Your task to perform on an android device: Search for alienware area 51 on target.com, select the first entry, add it to the cart, then select checkout. Image 0: 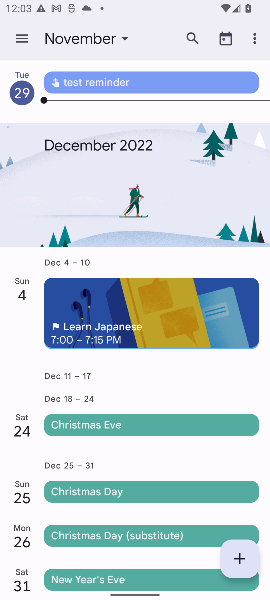
Step 0: press home button
Your task to perform on an android device: Search for alienware area 51 on target.com, select the first entry, add it to the cart, then select checkout. Image 1: 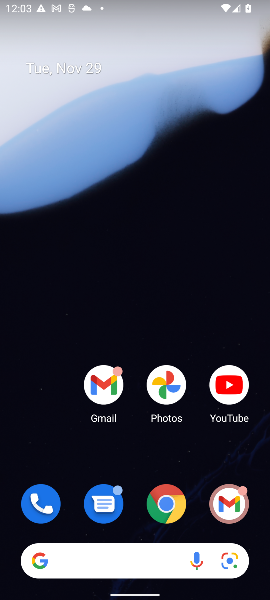
Step 1: click (171, 506)
Your task to perform on an android device: Search for alienware area 51 on target.com, select the first entry, add it to the cart, then select checkout. Image 2: 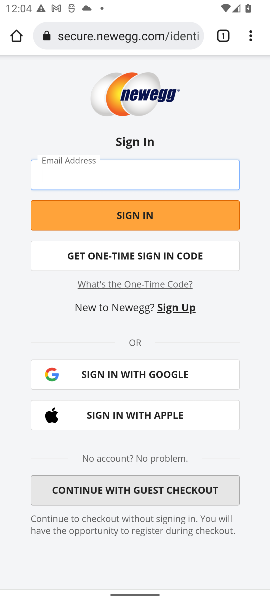
Step 2: click (101, 38)
Your task to perform on an android device: Search for alienware area 51 on target.com, select the first entry, add it to the cart, then select checkout. Image 3: 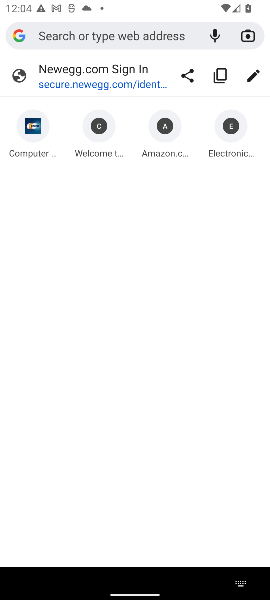
Step 3: type "target.com"
Your task to perform on an android device: Search for alienware area 51 on target.com, select the first entry, add it to the cart, then select checkout. Image 4: 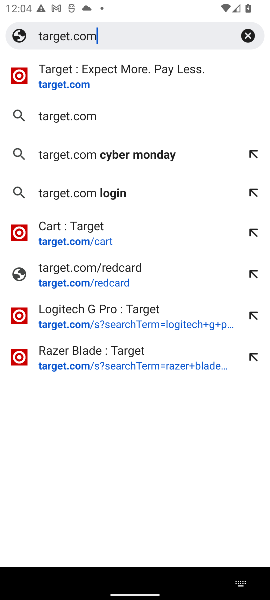
Step 4: click (63, 86)
Your task to perform on an android device: Search for alienware area 51 on target.com, select the first entry, add it to the cart, then select checkout. Image 5: 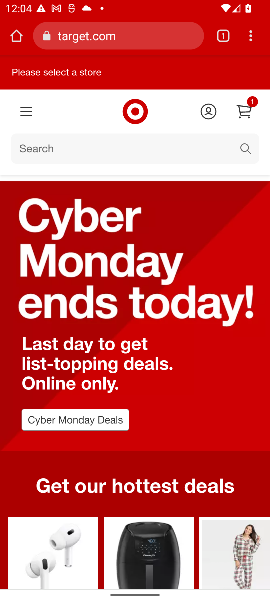
Step 5: click (37, 150)
Your task to perform on an android device: Search for alienware area 51 on target.com, select the first entry, add it to the cart, then select checkout. Image 6: 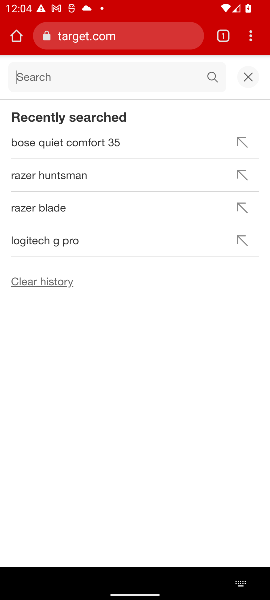
Step 6: type "alienware area 51"
Your task to perform on an android device: Search for alienware area 51 on target.com, select the first entry, add it to the cart, then select checkout. Image 7: 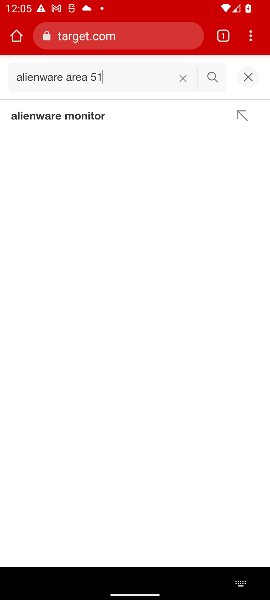
Step 7: click (210, 81)
Your task to perform on an android device: Search for alienware area 51 on target.com, select the first entry, add it to the cart, then select checkout. Image 8: 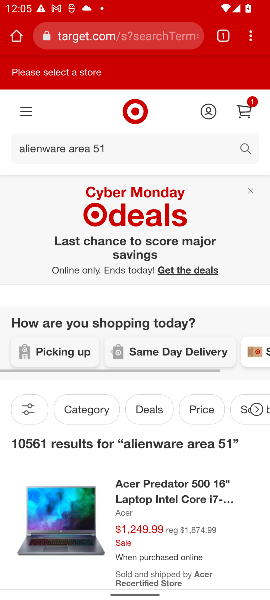
Step 8: task complete